Your task to perform on an android device: Open Google Maps Image 0: 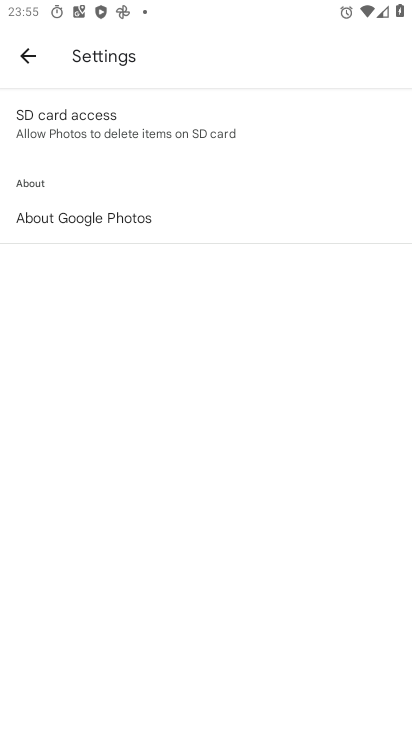
Step 0: press home button
Your task to perform on an android device: Open Google Maps Image 1: 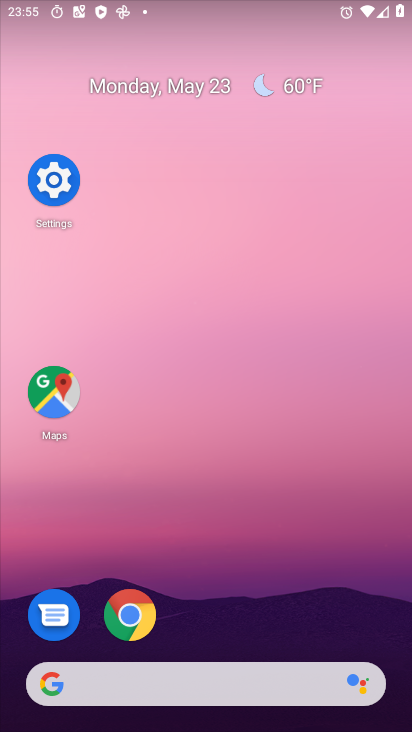
Step 1: click (66, 392)
Your task to perform on an android device: Open Google Maps Image 2: 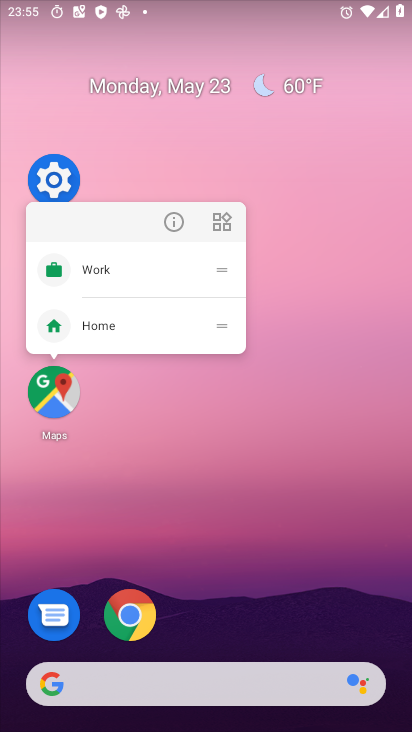
Step 2: click (44, 399)
Your task to perform on an android device: Open Google Maps Image 3: 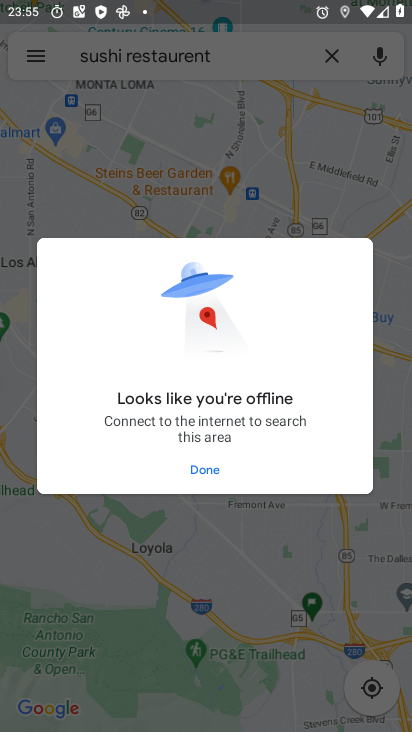
Step 3: click (211, 468)
Your task to perform on an android device: Open Google Maps Image 4: 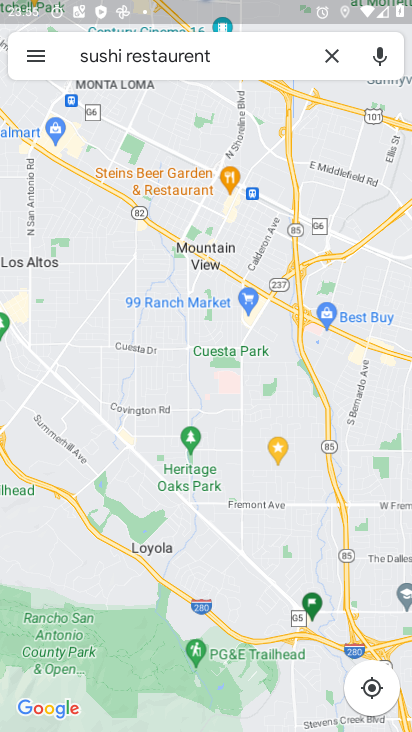
Step 4: click (330, 54)
Your task to perform on an android device: Open Google Maps Image 5: 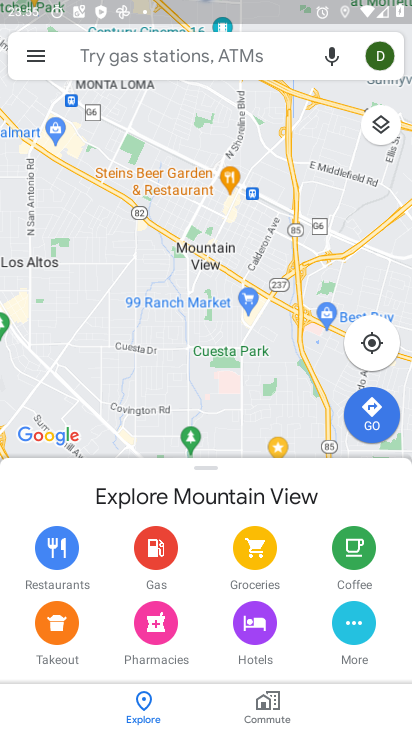
Step 5: task complete